Your task to perform on an android device: turn notification dots on Image 0: 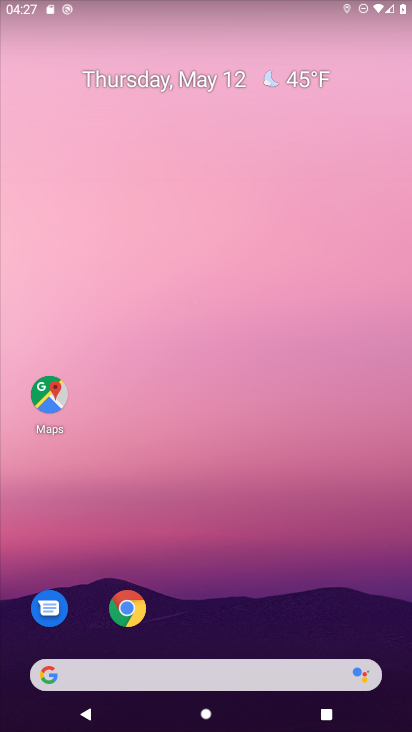
Step 0: drag from (353, 540) to (272, 33)
Your task to perform on an android device: turn notification dots on Image 1: 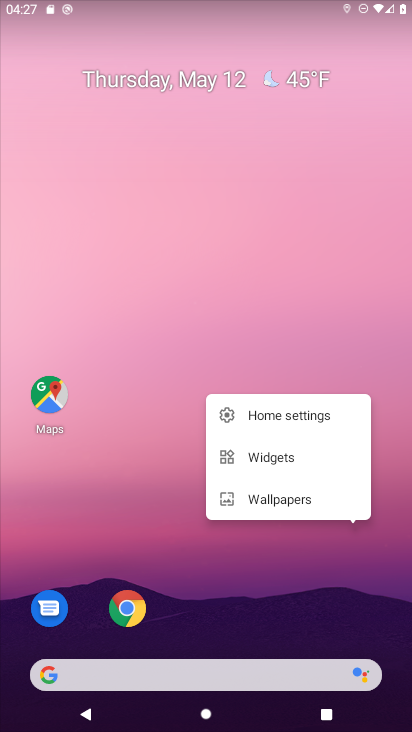
Step 1: click (152, 498)
Your task to perform on an android device: turn notification dots on Image 2: 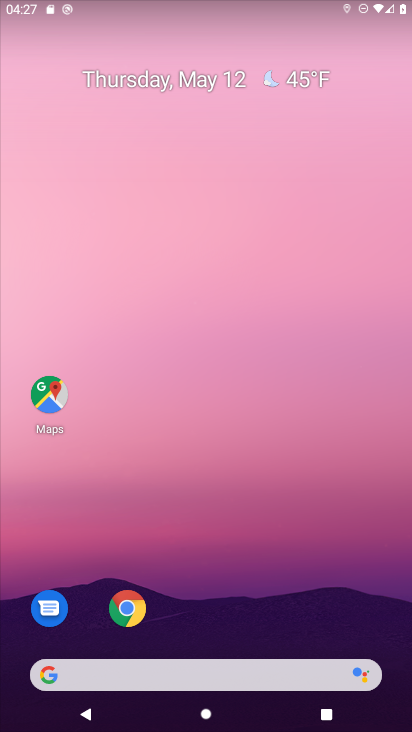
Step 2: drag from (258, 581) to (263, 121)
Your task to perform on an android device: turn notification dots on Image 3: 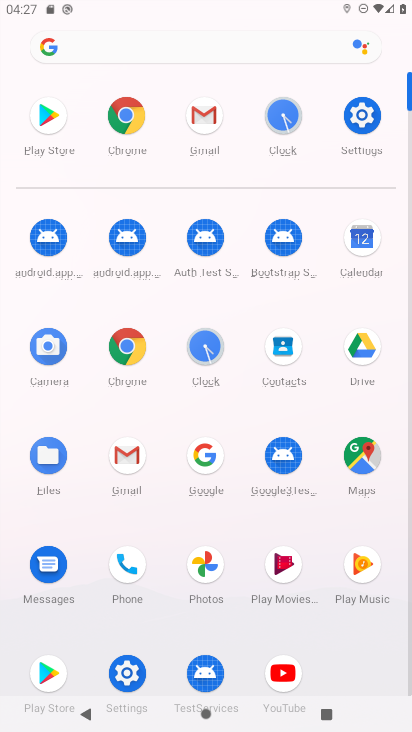
Step 3: click (345, 138)
Your task to perform on an android device: turn notification dots on Image 4: 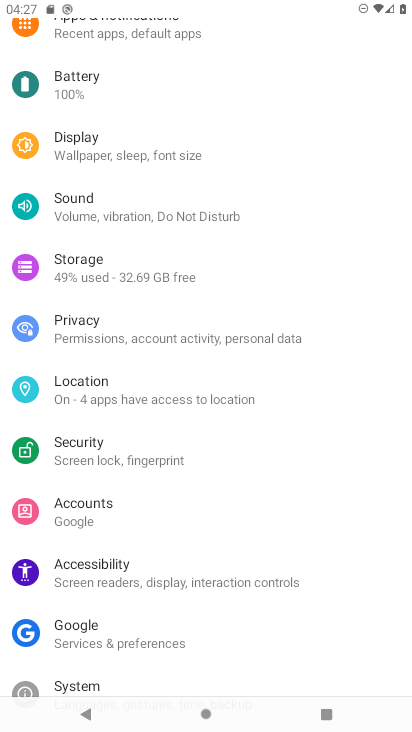
Step 4: drag from (188, 216) to (216, 361)
Your task to perform on an android device: turn notification dots on Image 5: 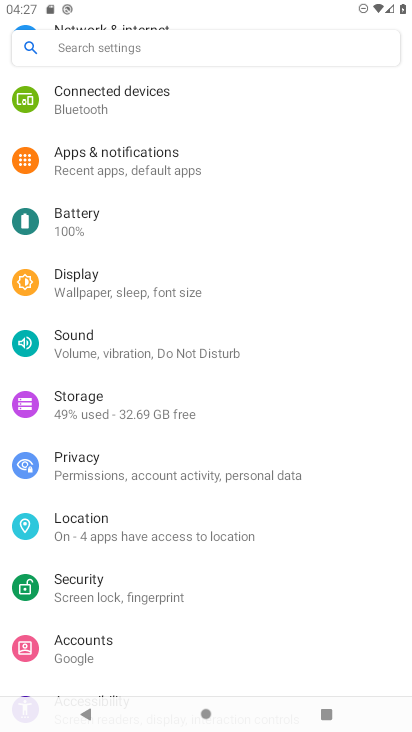
Step 5: drag from (157, 160) to (172, 273)
Your task to perform on an android device: turn notification dots on Image 6: 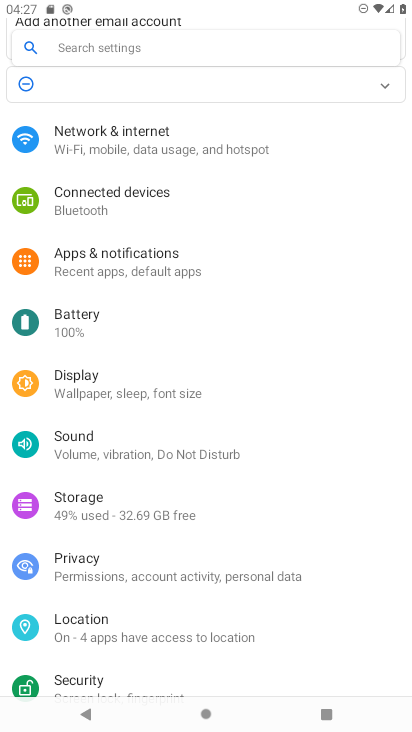
Step 6: click (172, 273)
Your task to perform on an android device: turn notification dots on Image 7: 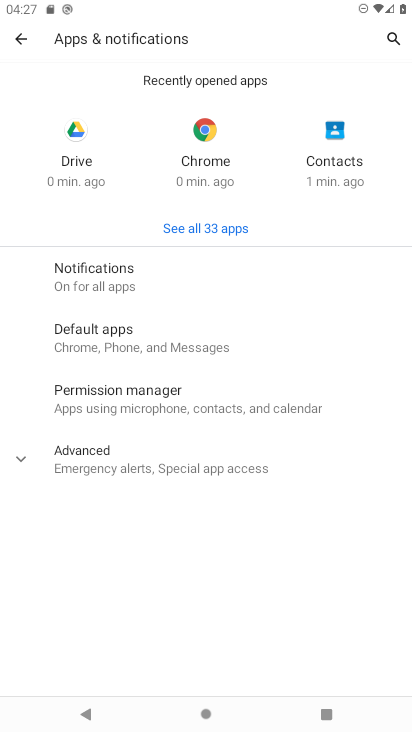
Step 7: click (129, 285)
Your task to perform on an android device: turn notification dots on Image 8: 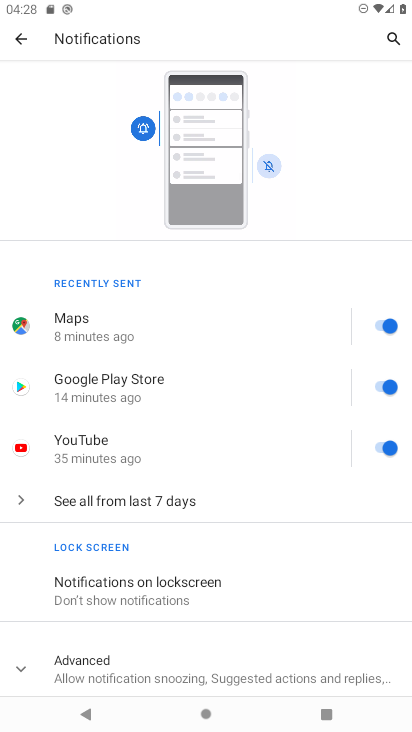
Step 8: drag from (201, 620) to (187, 461)
Your task to perform on an android device: turn notification dots on Image 9: 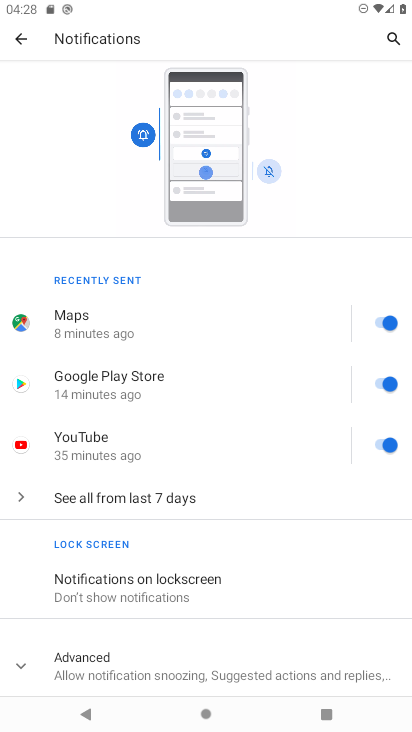
Step 9: click (207, 662)
Your task to perform on an android device: turn notification dots on Image 10: 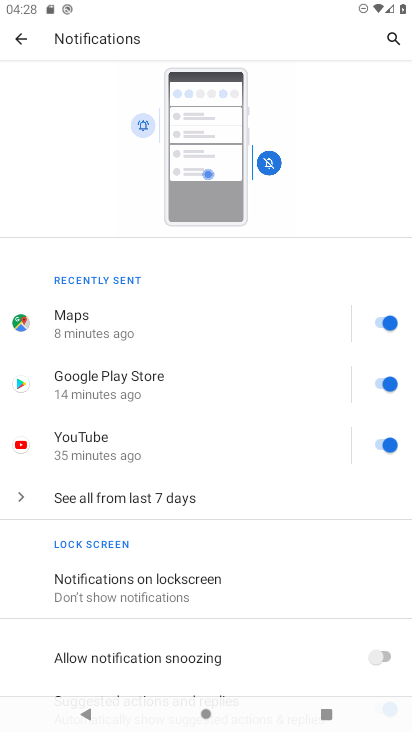
Step 10: task complete